Your task to perform on an android device: set default search engine in the chrome app Image 0: 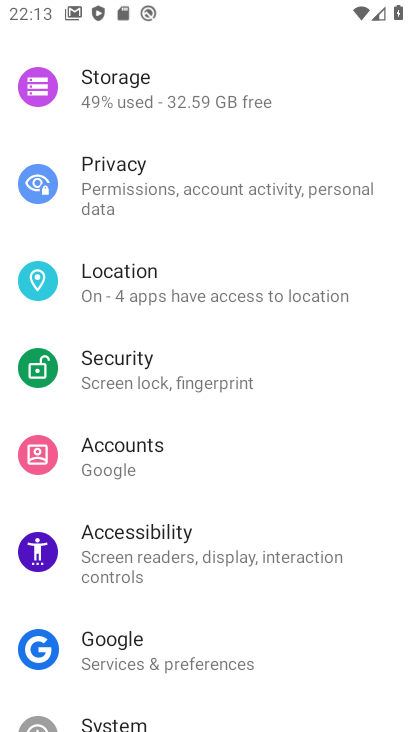
Step 0: press home button
Your task to perform on an android device: set default search engine in the chrome app Image 1: 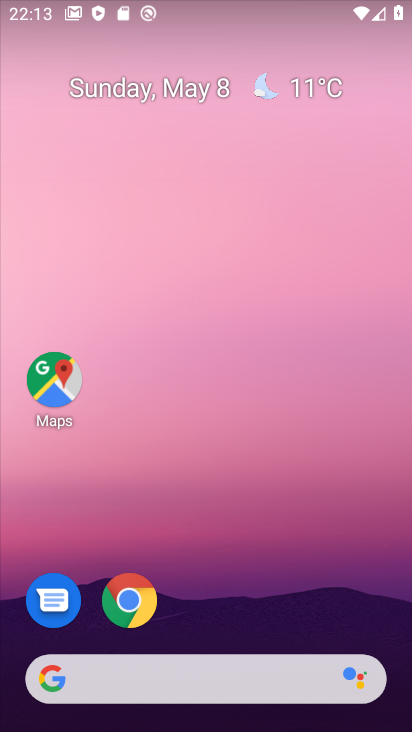
Step 1: click (119, 601)
Your task to perform on an android device: set default search engine in the chrome app Image 2: 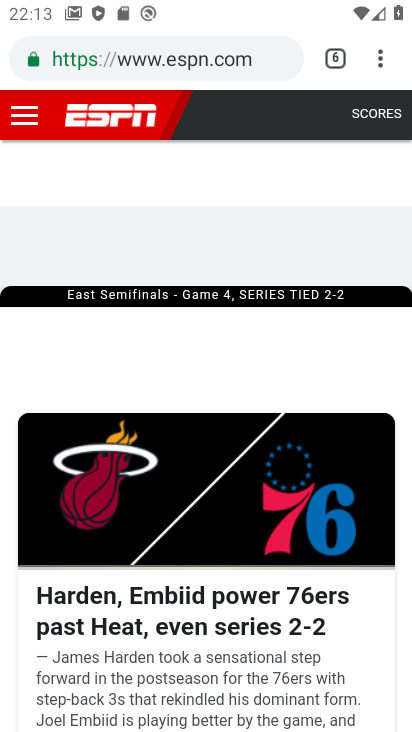
Step 2: click (372, 52)
Your task to perform on an android device: set default search engine in the chrome app Image 3: 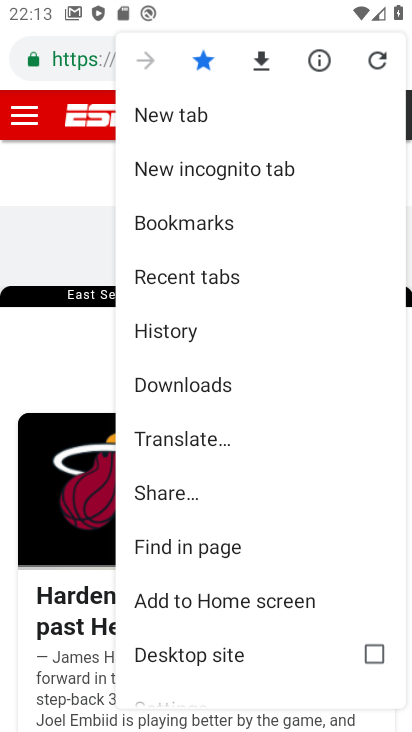
Step 3: drag from (195, 588) to (261, 138)
Your task to perform on an android device: set default search engine in the chrome app Image 4: 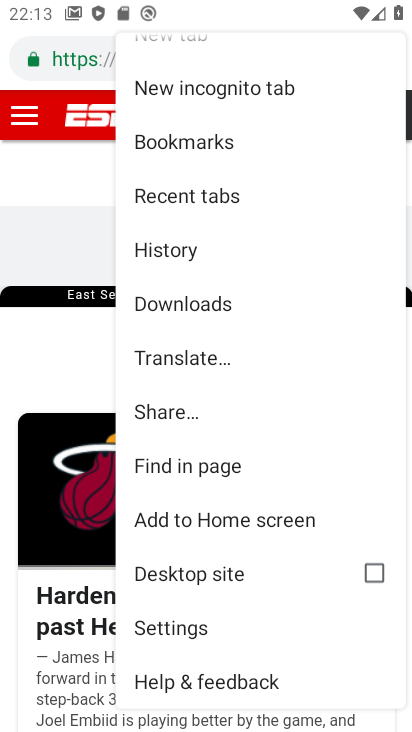
Step 4: click (256, 625)
Your task to perform on an android device: set default search engine in the chrome app Image 5: 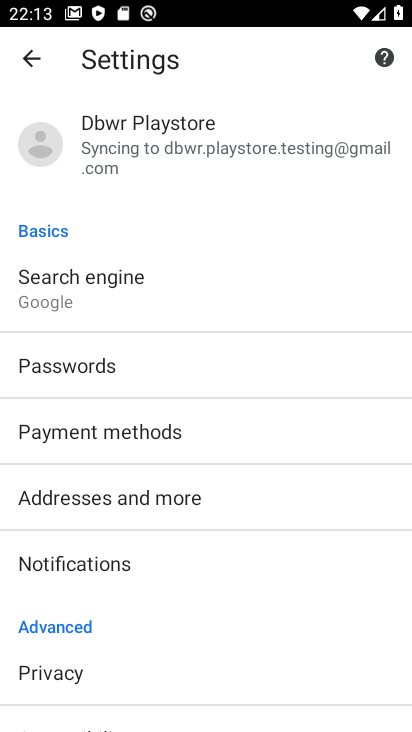
Step 5: click (160, 296)
Your task to perform on an android device: set default search engine in the chrome app Image 6: 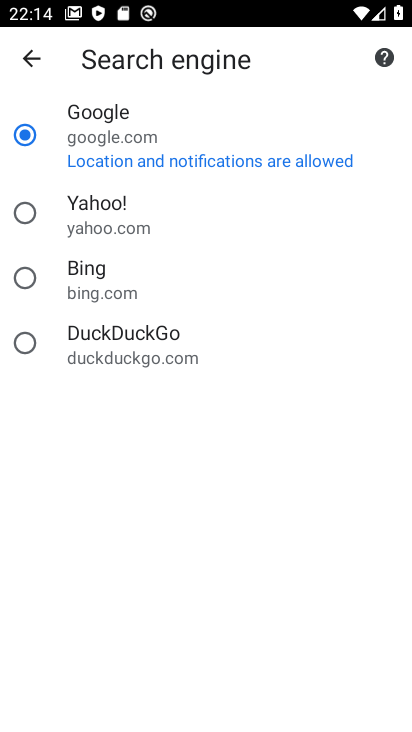
Step 6: click (165, 346)
Your task to perform on an android device: set default search engine in the chrome app Image 7: 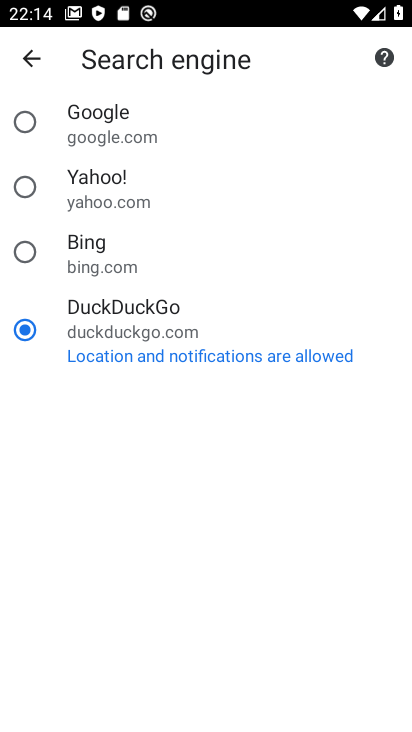
Step 7: task complete